Your task to perform on an android device: turn off data saver in the chrome app Image 0: 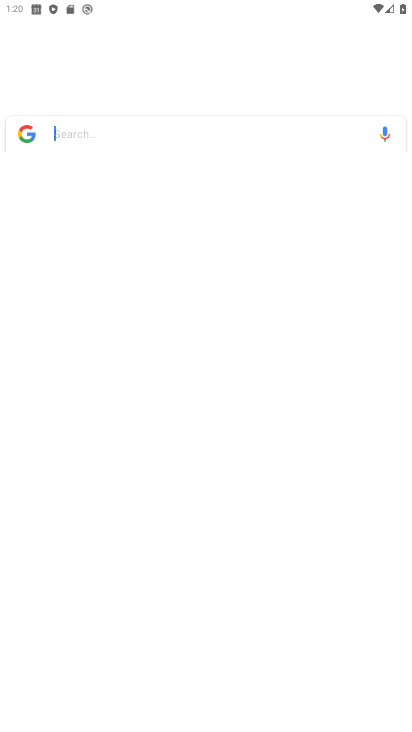
Step 0: drag from (249, 567) to (231, 324)
Your task to perform on an android device: turn off data saver in the chrome app Image 1: 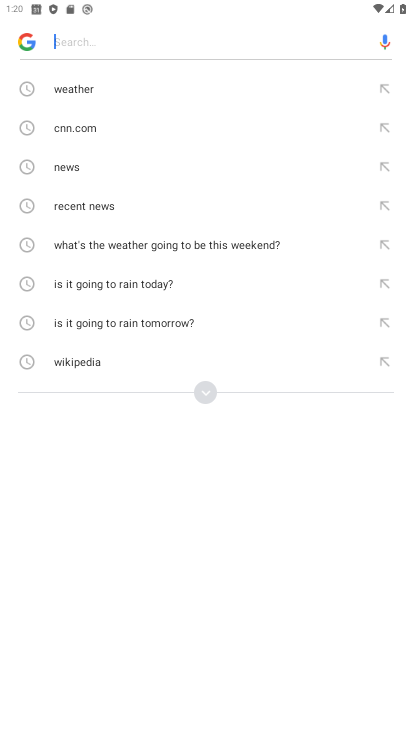
Step 1: press back button
Your task to perform on an android device: turn off data saver in the chrome app Image 2: 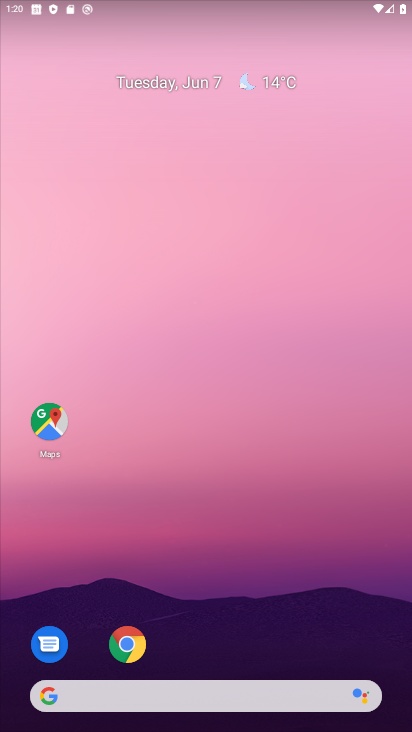
Step 2: drag from (224, 640) to (155, 111)
Your task to perform on an android device: turn off data saver in the chrome app Image 3: 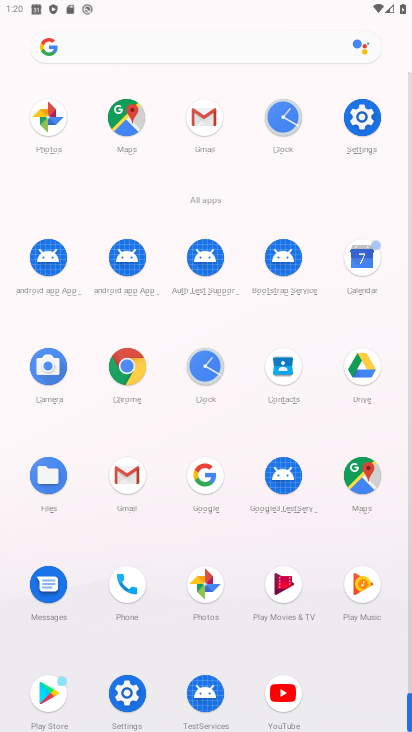
Step 3: click (124, 367)
Your task to perform on an android device: turn off data saver in the chrome app Image 4: 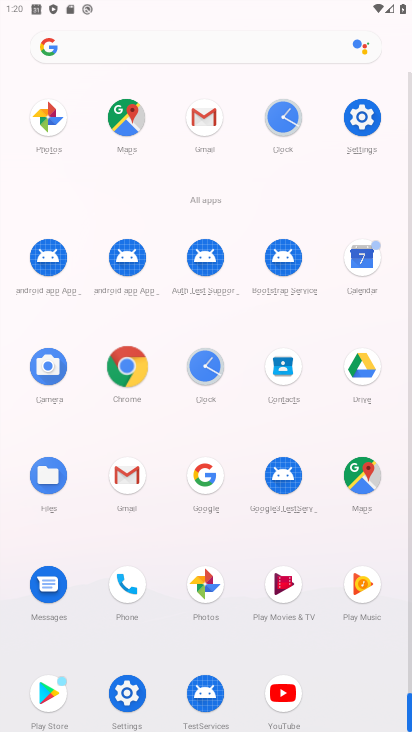
Step 4: click (124, 367)
Your task to perform on an android device: turn off data saver in the chrome app Image 5: 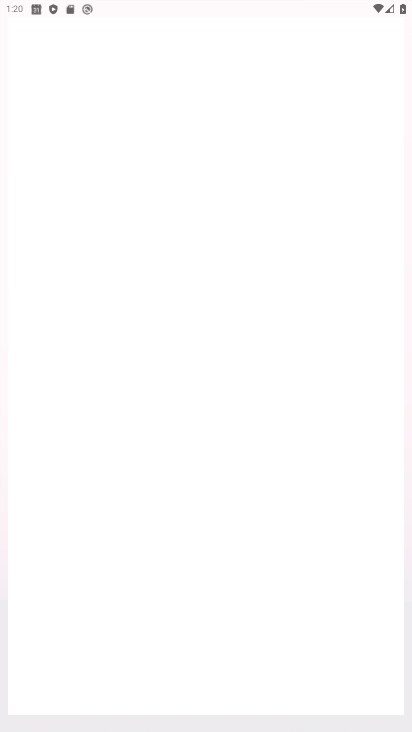
Step 5: click (124, 367)
Your task to perform on an android device: turn off data saver in the chrome app Image 6: 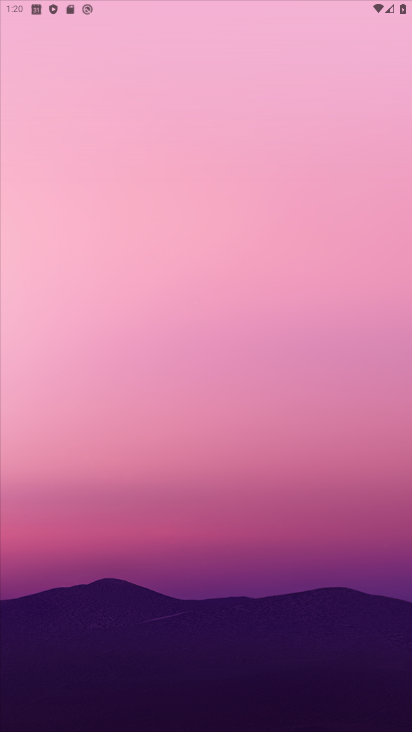
Step 6: click (124, 367)
Your task to perform on an android device: turn off data saver in the chrome app Image 7: 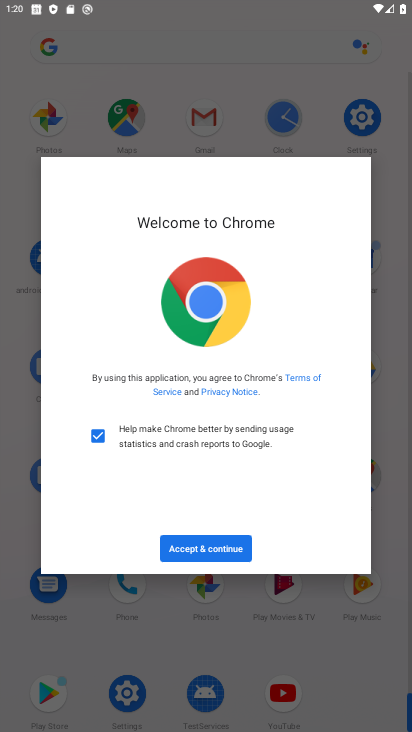
Step 7: click (196, 542)
Your task to perform on an android device: turn off data saver in the chrome app Image 8: 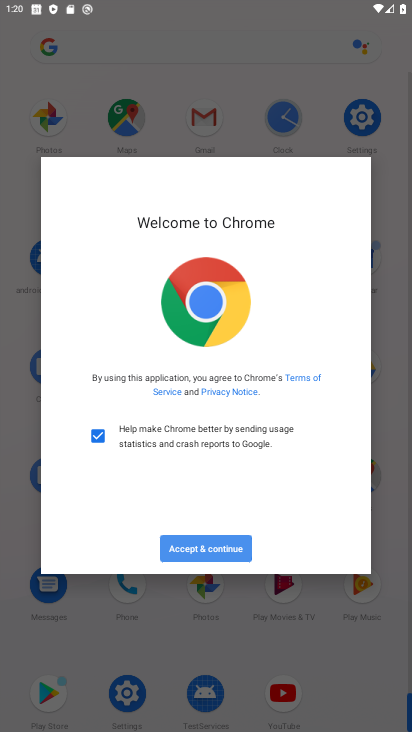
Step 8: click (196, 542)
Your task to perform on an android device: turn off data saver in the chrome app Image 9: 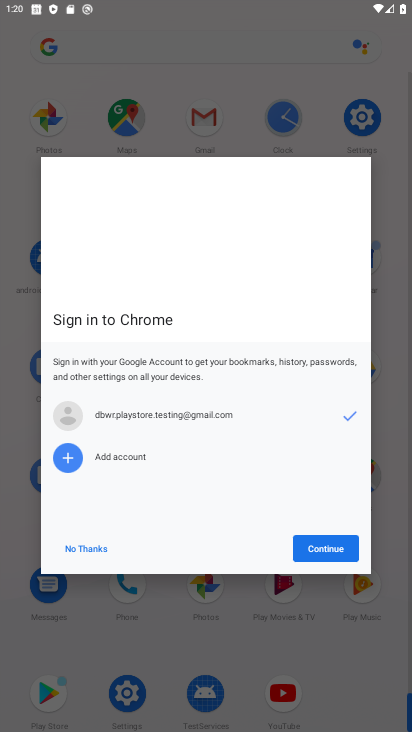
Step 9: click (196, 542)
Your task to perform on an android device: turn off data saver in the chrome app Image 10: 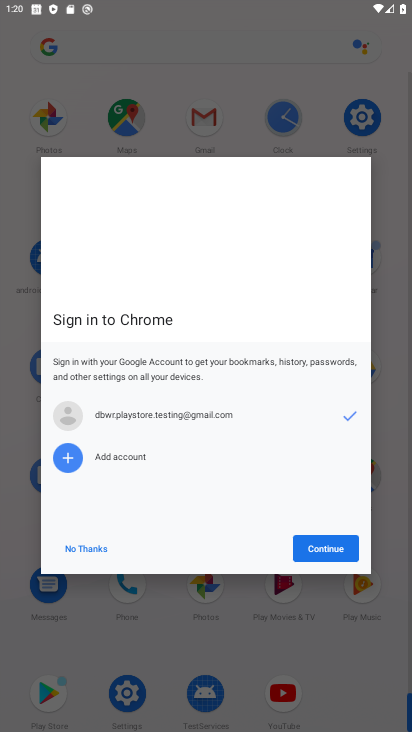
Step 10: click (196, 542)
Your task to perform on an android device: turn off data saver in the chrome app Image 11: 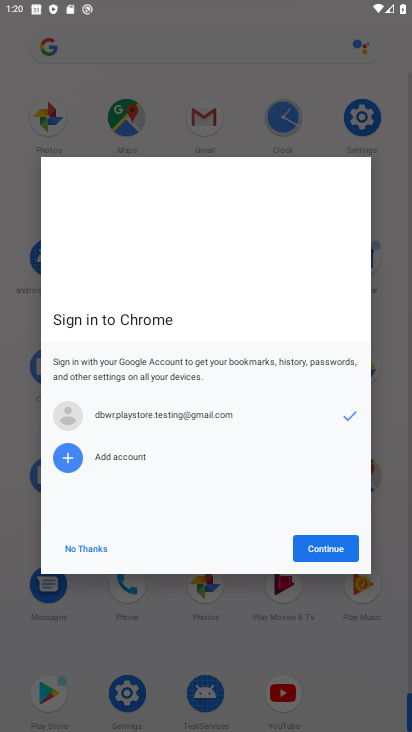
Step 11: click (196, 542)
Your task to perform on an android device: turn off data saver in the chrome app Image 12: 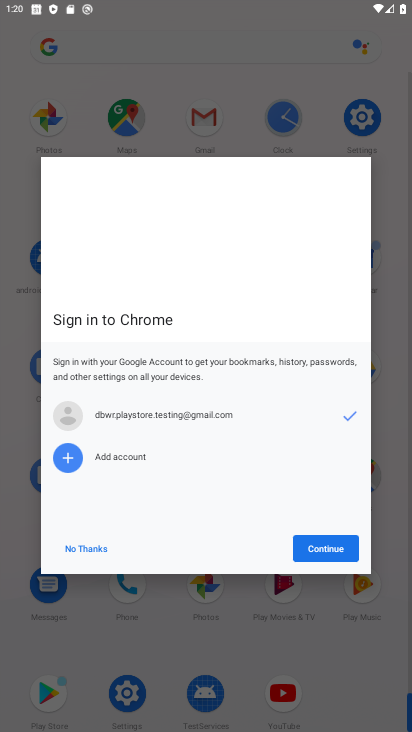
Step 12: click (321, 548)
Your task to perform on an android device: turn off data saver in the chrome app Image 13: 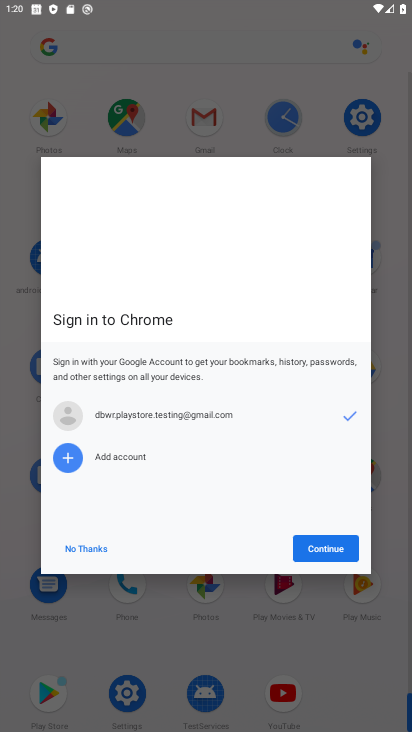
Step 13: click (321, 548)
Your task to perform on an android device: turn off data saver in the chrome app Image 14: 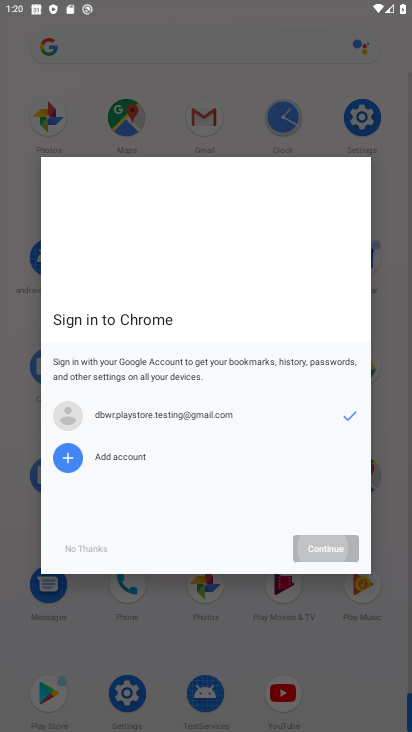
Step 14: click (323, 550)
Your task to perform on an android device: turn off data saver in the chrome app Image 15: 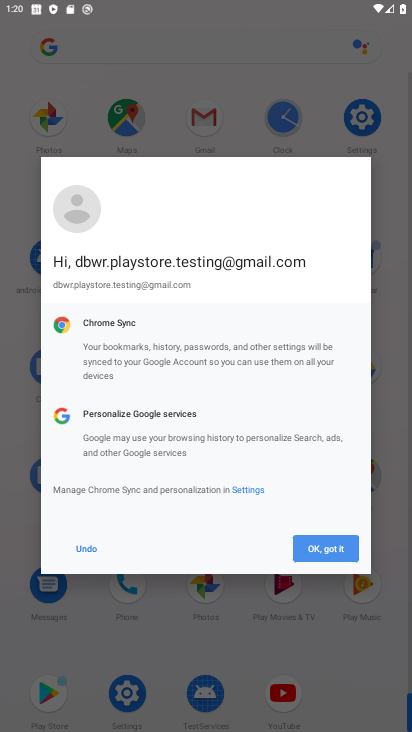
Step 15: click (323, 550)
Your task to perform on an android device: turn off data saver in the chrome app Image 16: 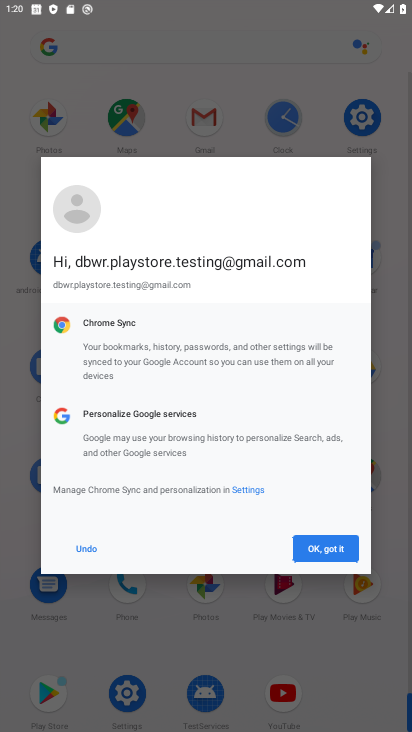
Step 16: click (323, 550)
Your task to perform on an android device: turn off data saver in the chrome app Image 17: 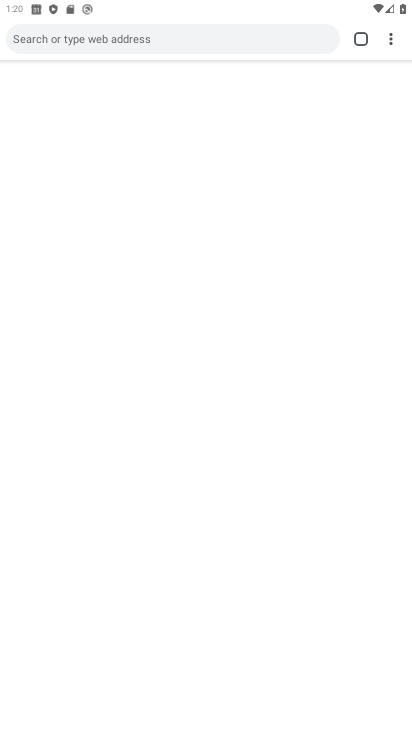
Step 17: click (322, 550)
Your task to perform on an android device: turn off data saver in the chrome app Image 18: 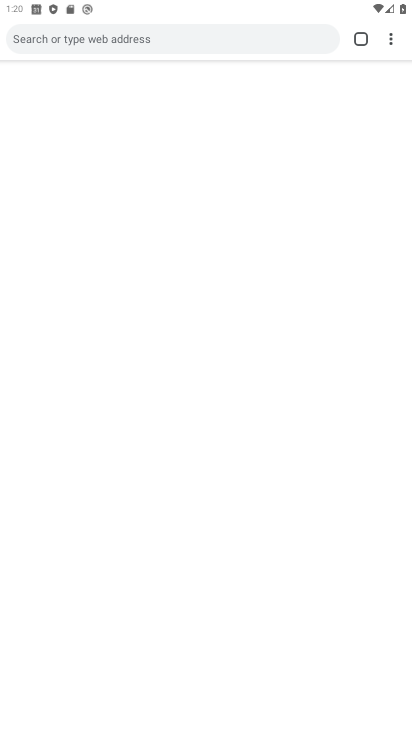
Step 18: click (322, 550)
Your task to perform on an android device: turn off data saver in the chrome app Image 19: 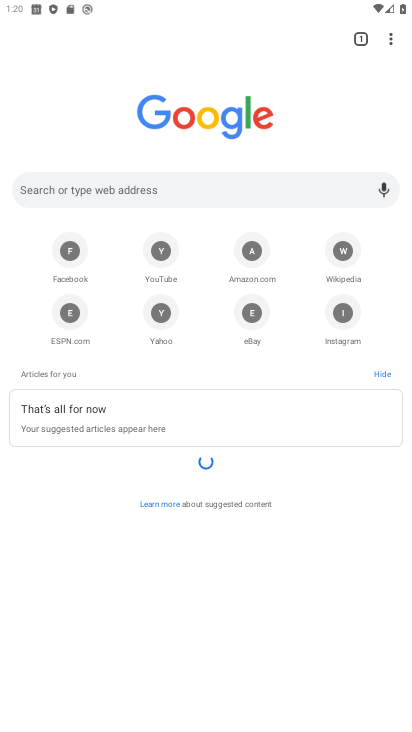
Step 19: drag from (388, 46) to (241, 326)
Your task to perform on an android device: turn off data saver in the chrome app Image 20: 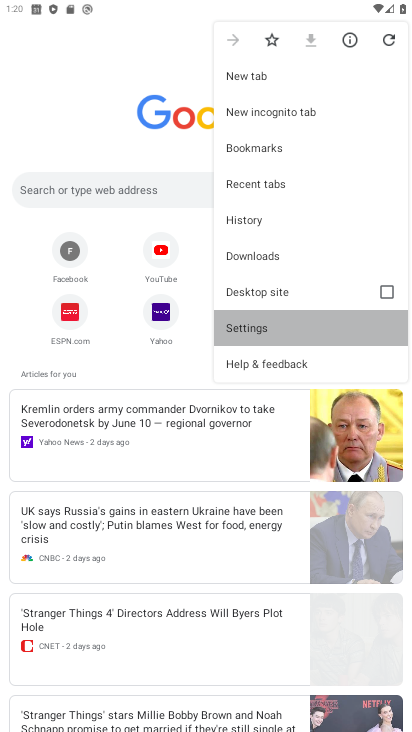
Step 20: click (241, 326)
Your task to perform on an android device: turn off data saver in the chrome app Image 21: 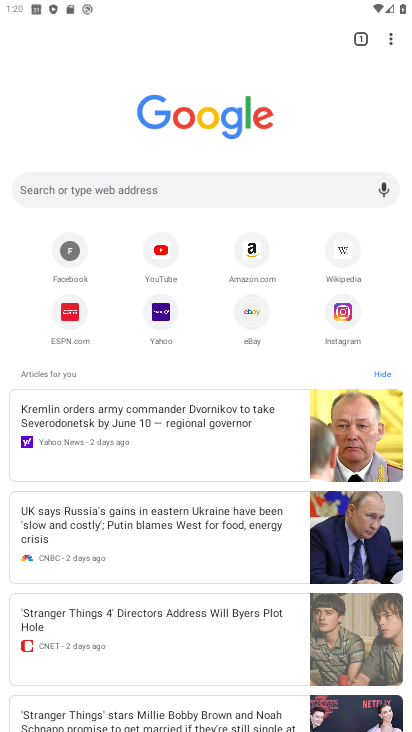
Step 21: click (241, 326)
Your task to perform on an android device: turn off data saver in the chrome app Image 22: 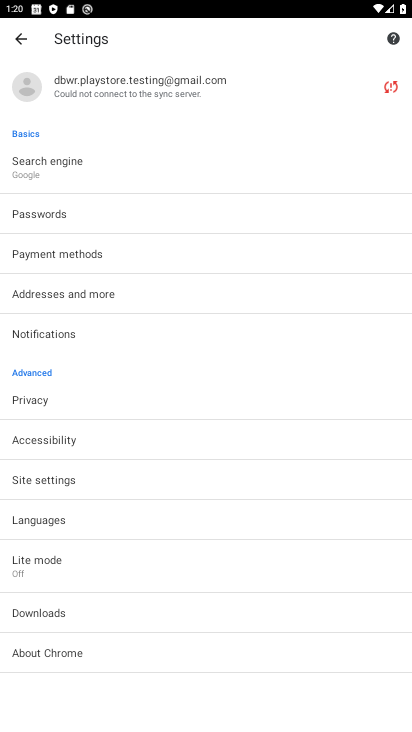
Step 22: click (27, 551)
Your task to perform on an android device: turn off data saver in the chrome app Image 23: 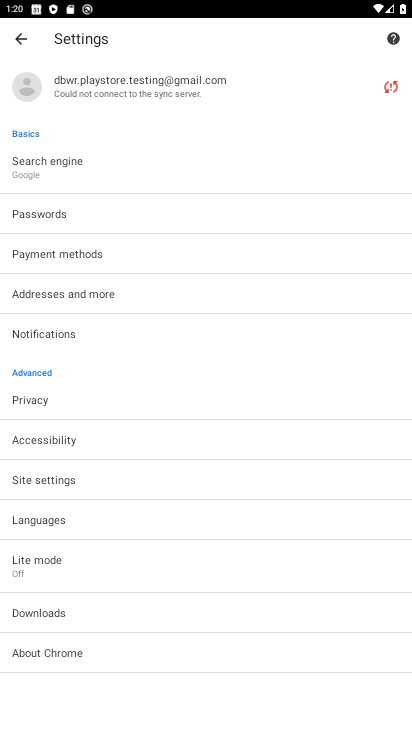
Step 23: click (27, 552)
Your task to perform on an android device: turn off data saver in the chrome app Image 24: 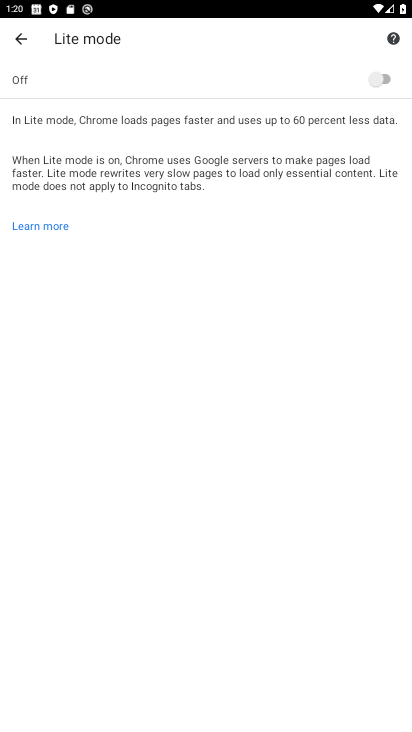
Step 24: task complete